Your task to perform on an android device: Search for seafood restaurants on Google Maps Image 0: 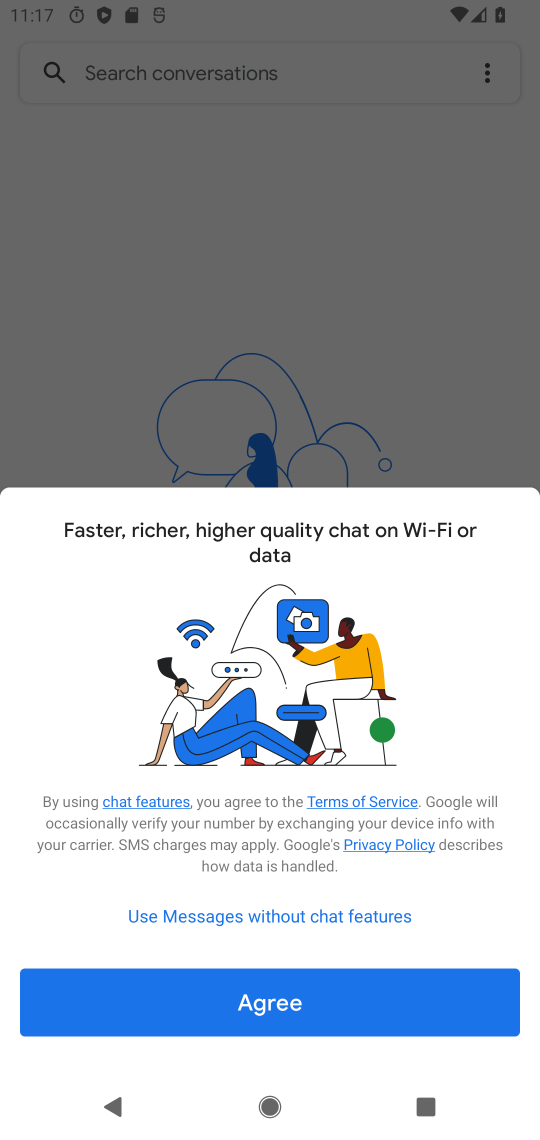
Step 0: press home button
Your task to perform on an android device: Search for seafood restaurants on Google Maps Image 1: 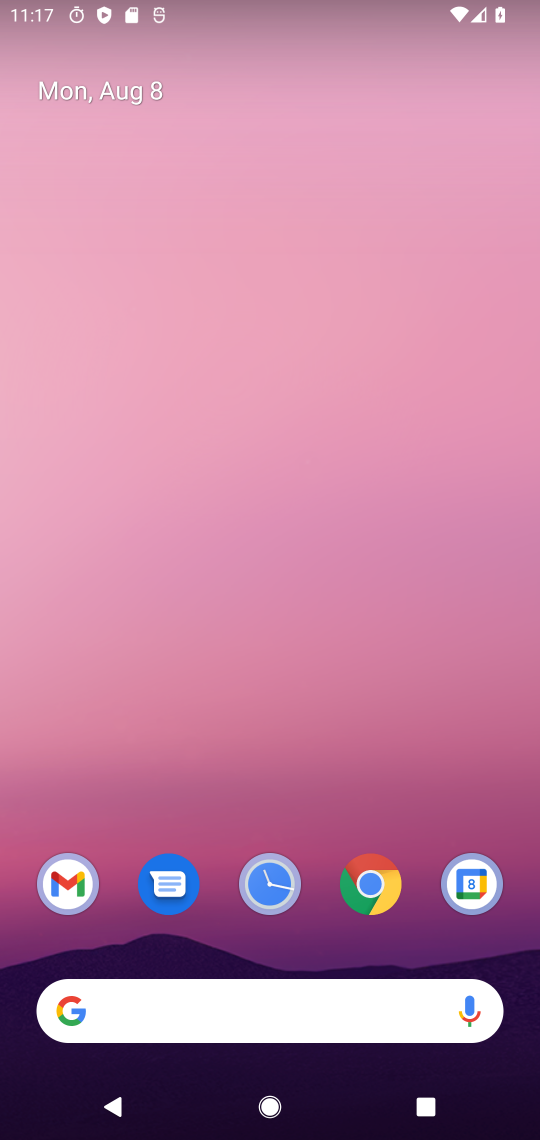
Step 1: drag from (223, 692) to (212, 242)
Your task to perform on an android device: Search for seafood restaurants on Google Maps Image 2: 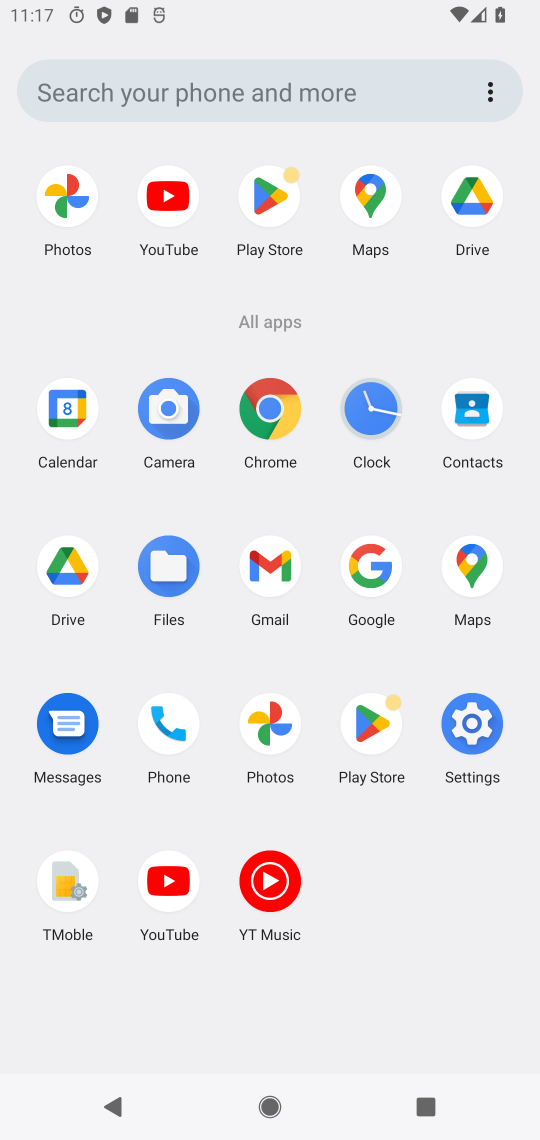
Step 2: click (364, 205)
Your task to perform on an android device: Search for seafood restaurants on Google Maps Image 3: 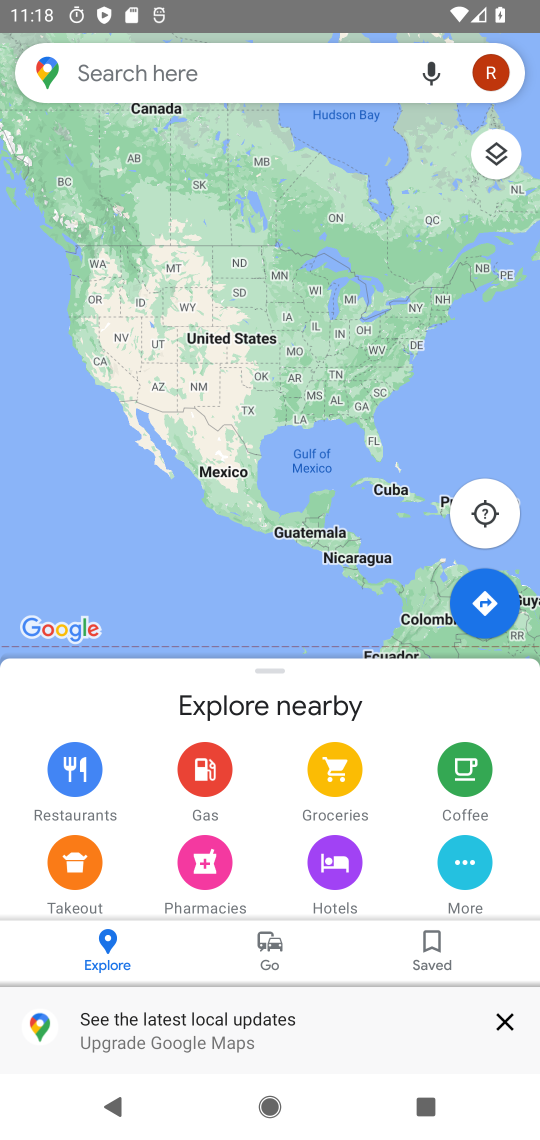
Step 3: click (207, 54)
Your task to perform on an android device: Search for seafood restaurants on Google Maps Image 4: 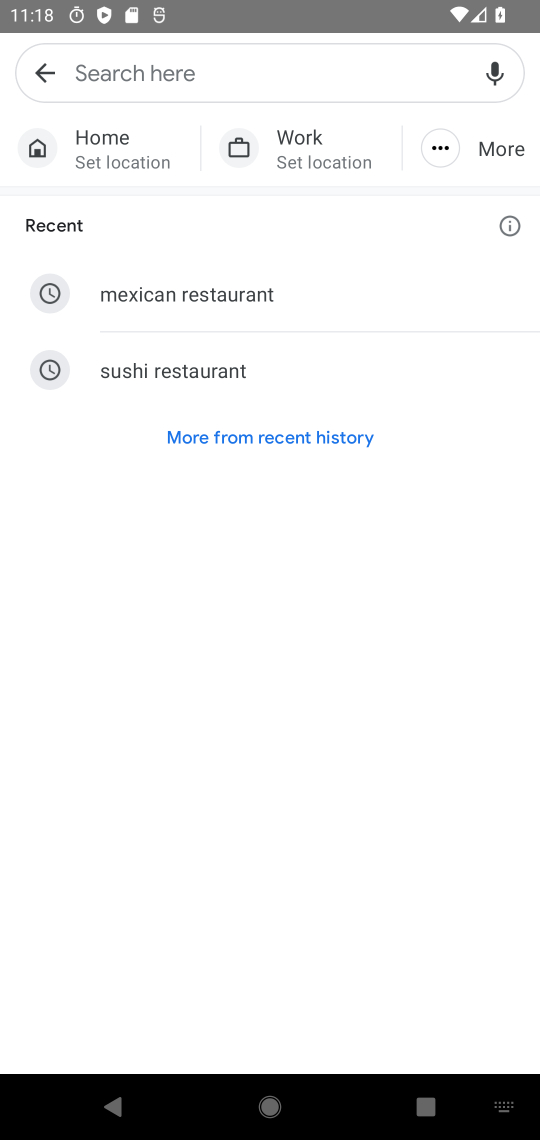
Step 4: type "seafood restaurants"
Your task to perform on an android device: Search for seafood restaurants on Google Maps Image 5: 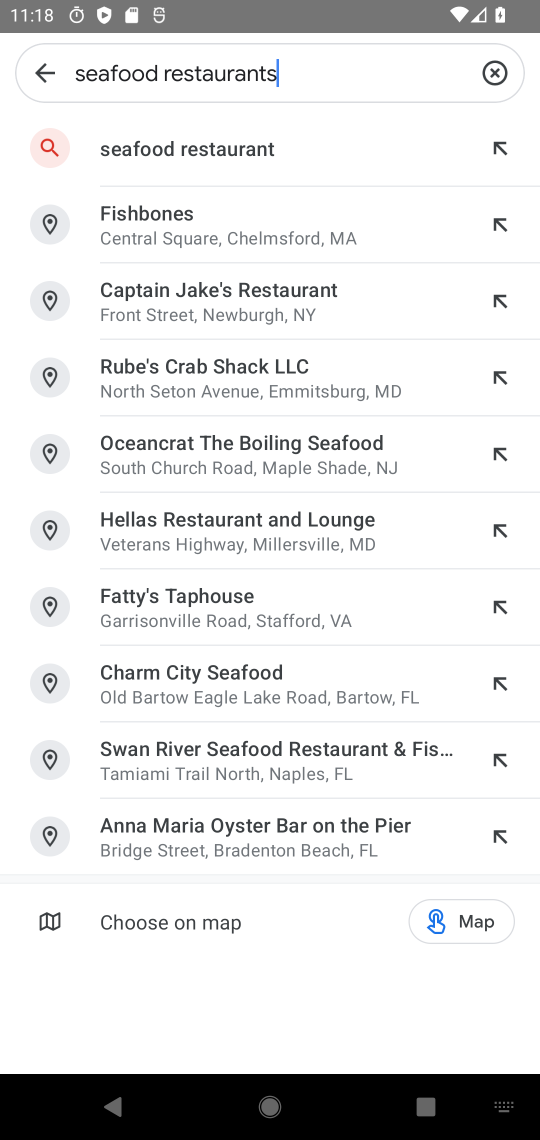
Step 5: click (180, 148)
Your task to perform on an android device: Search for seafood restaurants on Google Maps Image 6: 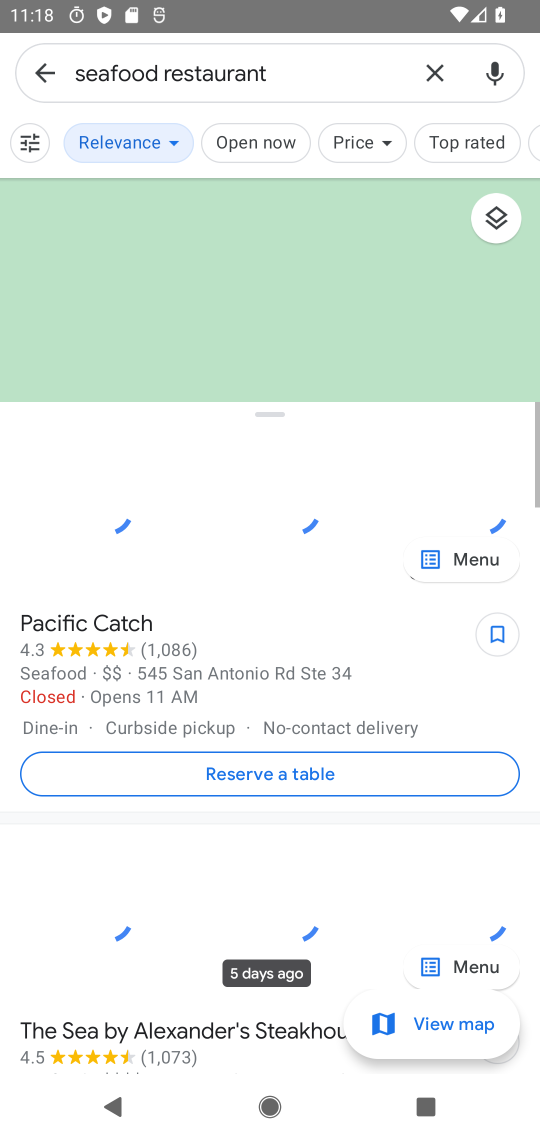
Step 6: click (195, 145)
Your task to perform on an android device: Search for seafood restaurants on Google Maps Image 7: 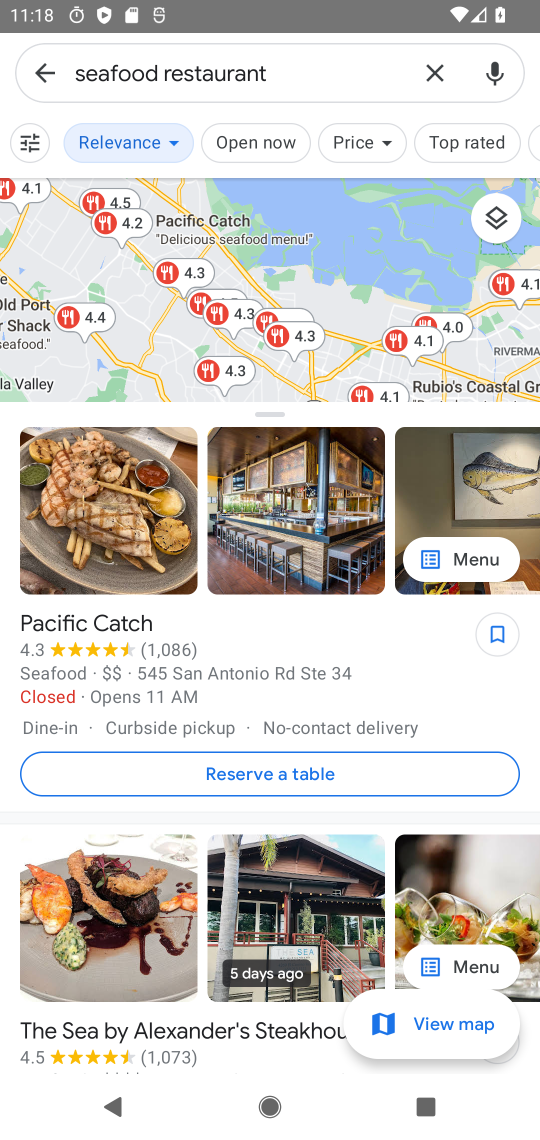
Step 7: task complete